Your task to perform on an android device: See recent photos Image 0: 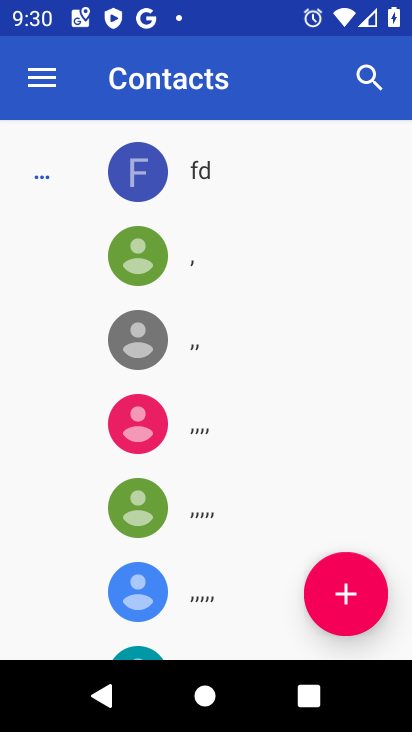
Step 0: press home button
Your task to perform on an android device: See recent photos Image 1: 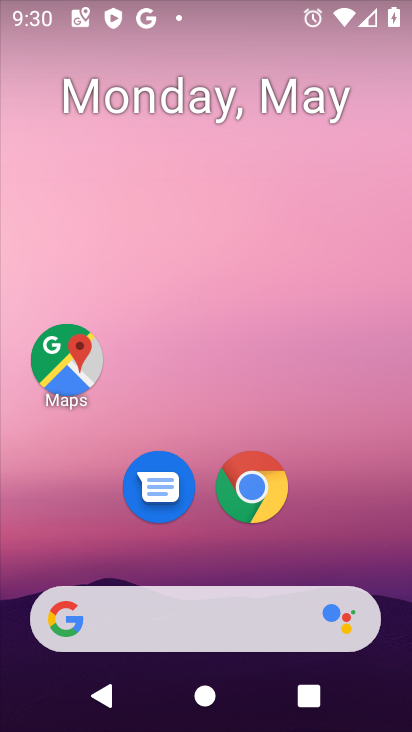
Step 1: drag from (214, 557) to (209, 247)
Your task to perform on an android device: See recent photos Image 2: 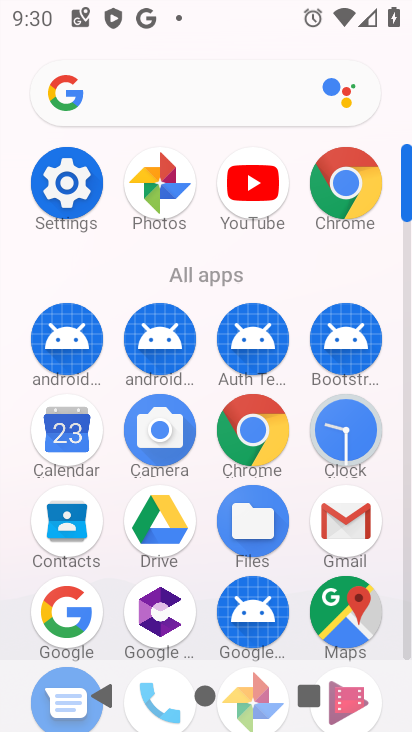
Step 2: click (169, 204)
Your task to perform on an android device: See recent photos Image 3: 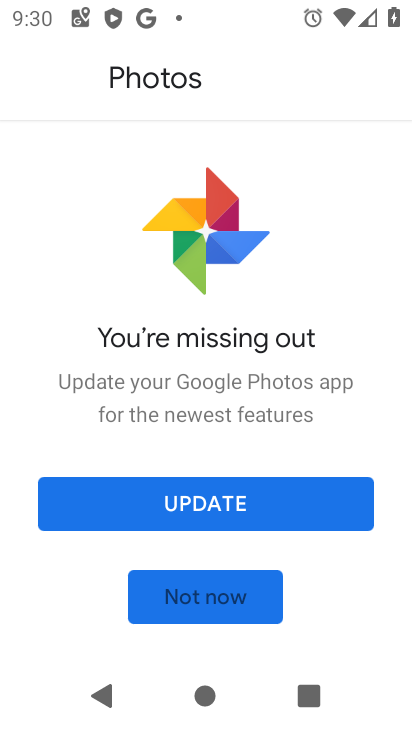
Step 3: click (160, 606)
Your task to perform on an android device: See recent photos Image 4: 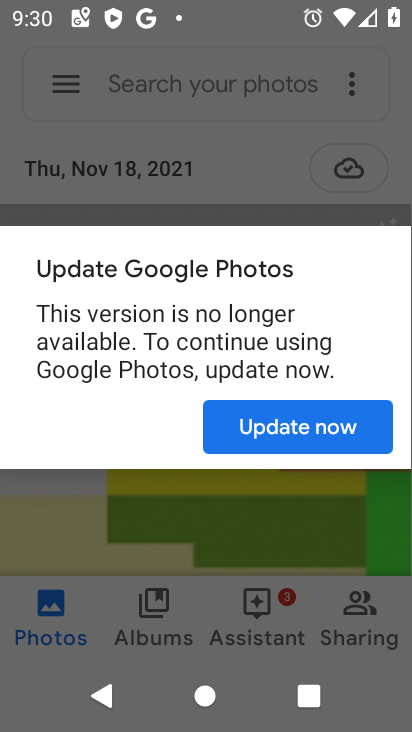
Step 4: click (256, 432)
Your task to perform on an android device: See recent photos Image 5: 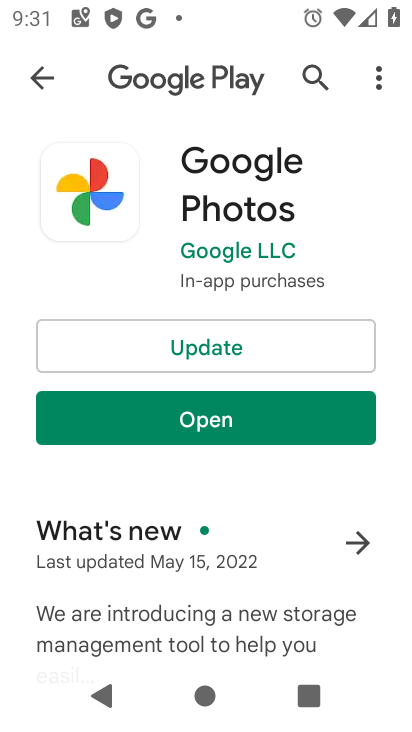
Step 5: click (139, 415)
Your task to perform on an android device: See recent photos Image 6: 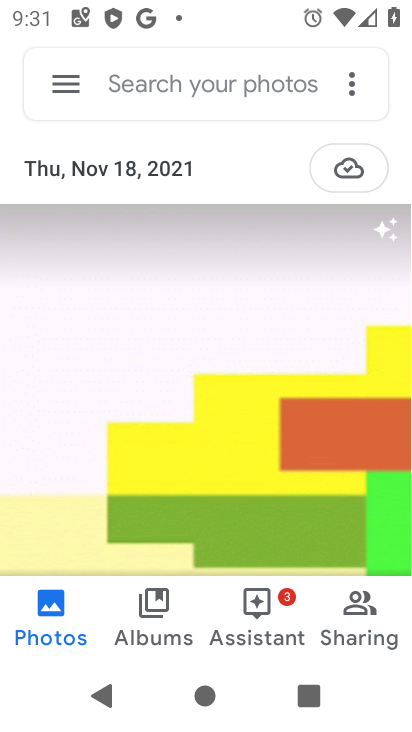
Step 6: task complete